Your task to perform on an android device: change notifications settings Image 0: 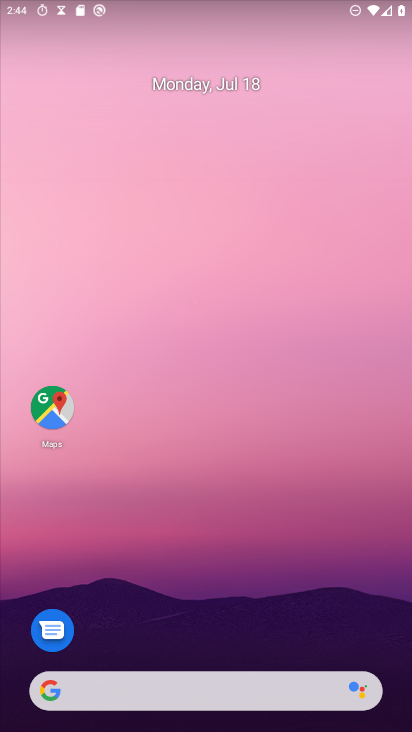
Step 0: drag from (290, 642) to (310, 168)
Your task to perform on an android device: change notifications settings Image 1: 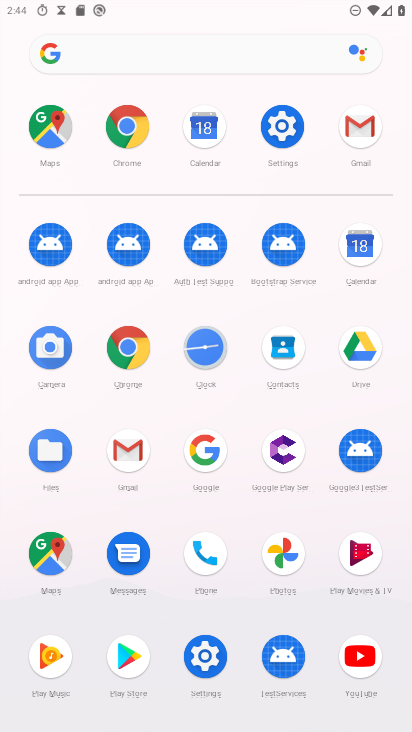
Step 1: click (276, 127)
Your task to perform on an android device: change notifications settings Image 2: 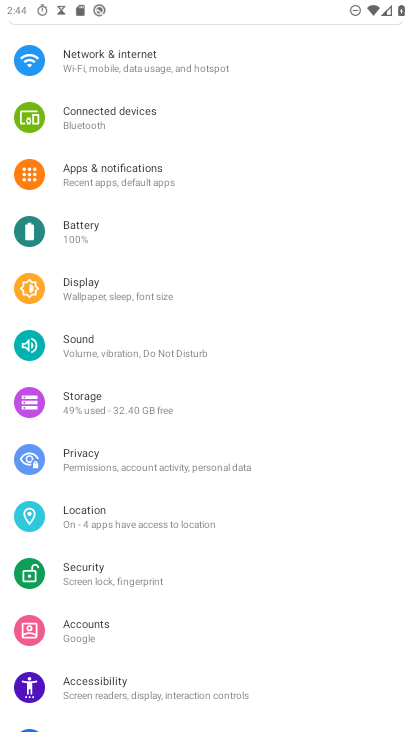
Step 2: click (145, 174)
Your task to perform on an android device: change notifications settings Image 3: 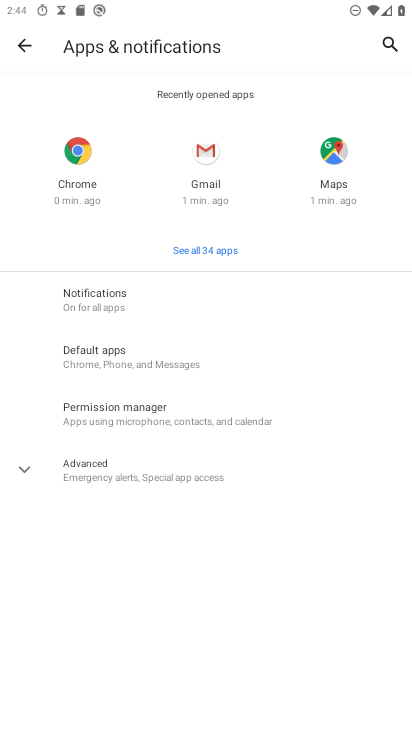
Step 3: click (105, 293)
Your task to perform on an android device: change notifications settings Image 4: 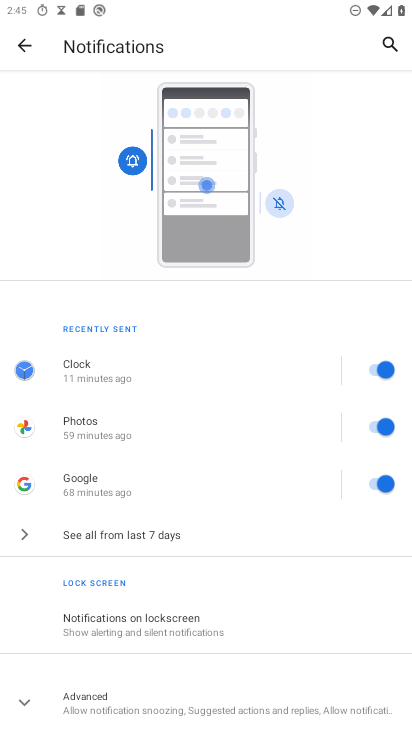
Step 4: click (298, 707)
Your task to perform on an android device: change notifications settings Image 5: 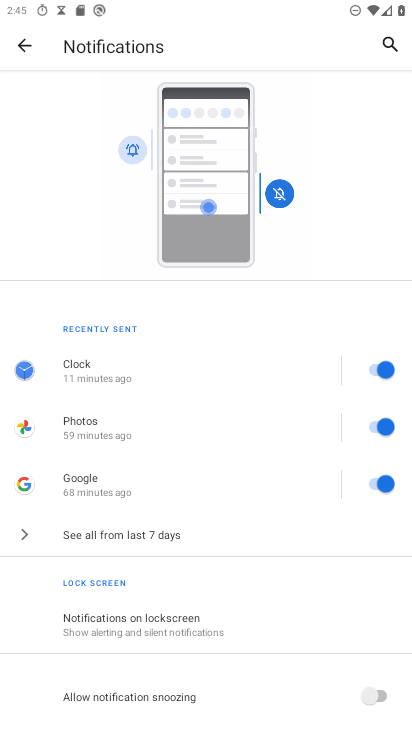
Step 5: click (367, 368)
Your task to perform on an android device: change notifications settings Image 6: 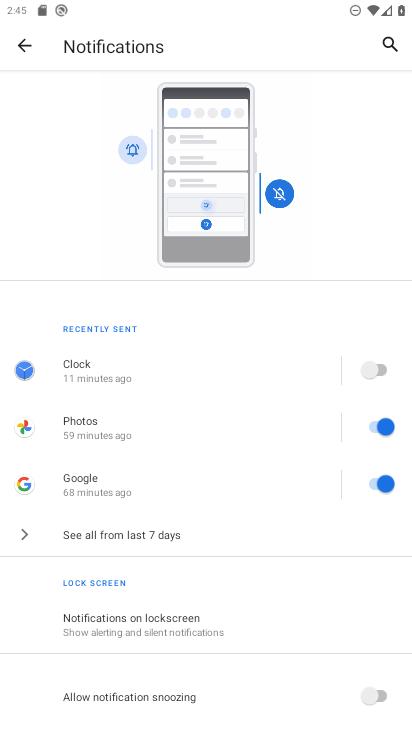
Step 6: task complete